Your task to perform on an android device: Open privacy settings Image 0: 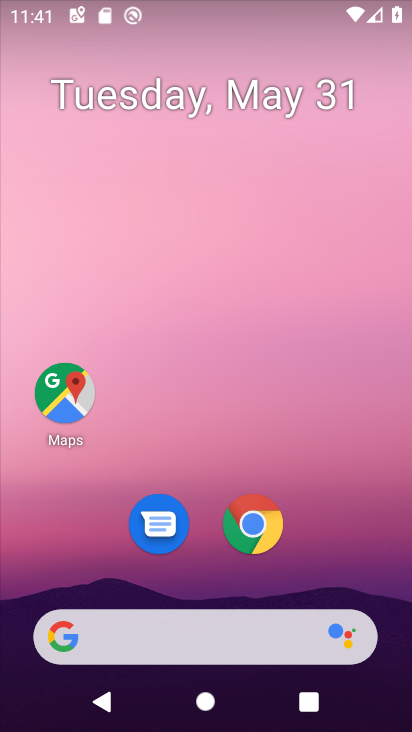
Step 0: drag from (312, 531) to (321, 51)
Your task to perform on an android device: Open privacy settings Image 1: 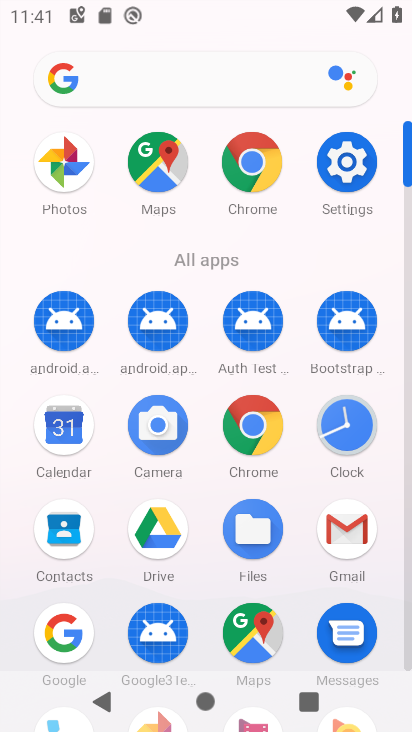
Step 1: click (339, 147)
Your task to perform on an android device: Open privacy settings Image 2: 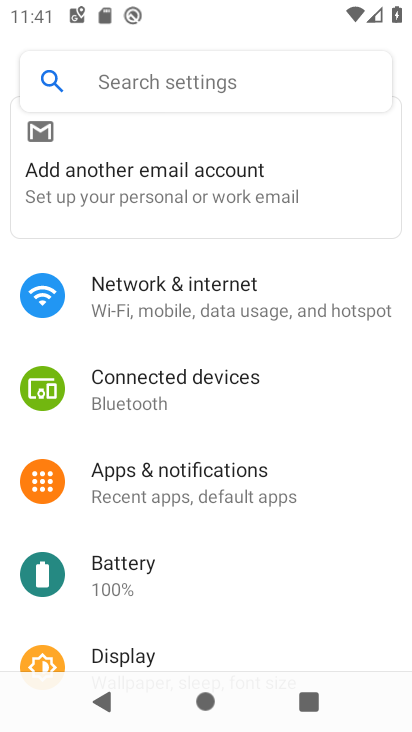
Step 2: drag from (201, 558) to (233, 192)
Your task to perform on an android device: Open privacy settings Image 3: 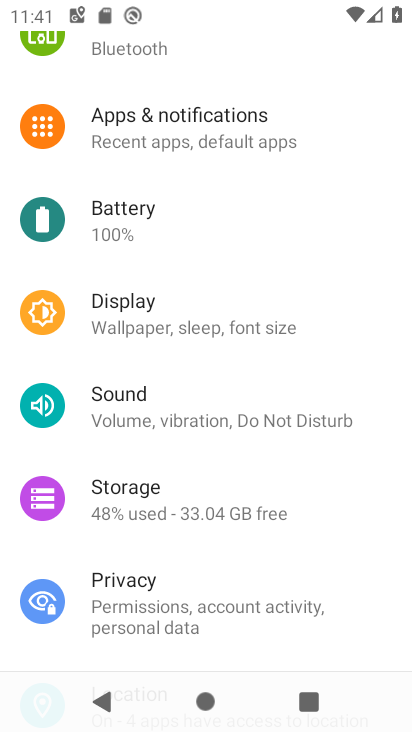
Step 3: click (211, 592)
Your task to perform on an android device: Open privacy settings Image 4: 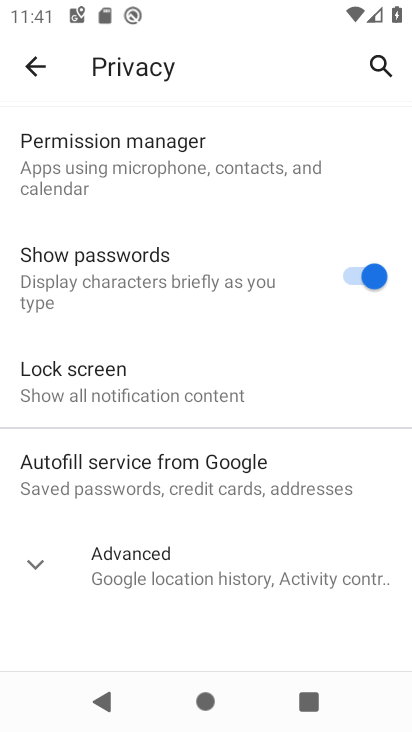
Step 4: task complete